Your task to perform on an android device: change the clock display to digital Image 0: 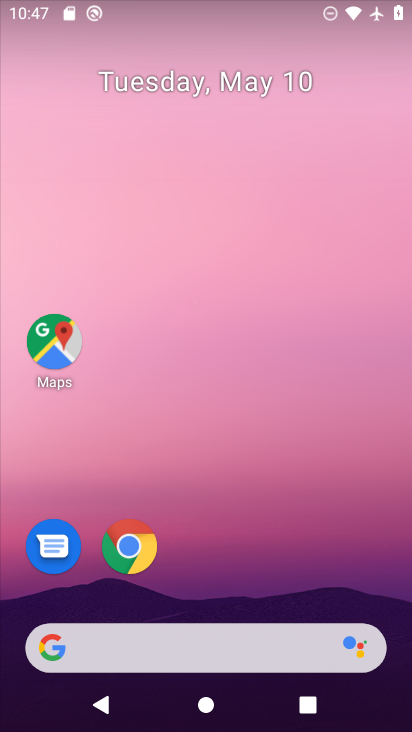
Step 0: drag from (300, 595) to (308, 136)
Your task to perform on an android device: change the clock display to digital Image 1: 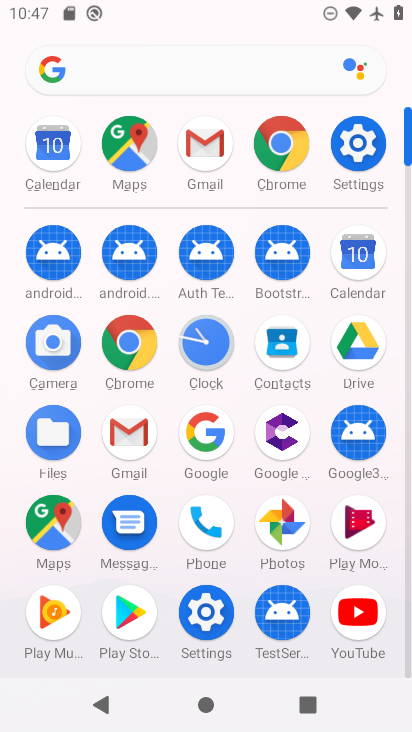
Step 1: click (214, 337)
Your task to perform on an android device: change the clock display to digital Image 2: 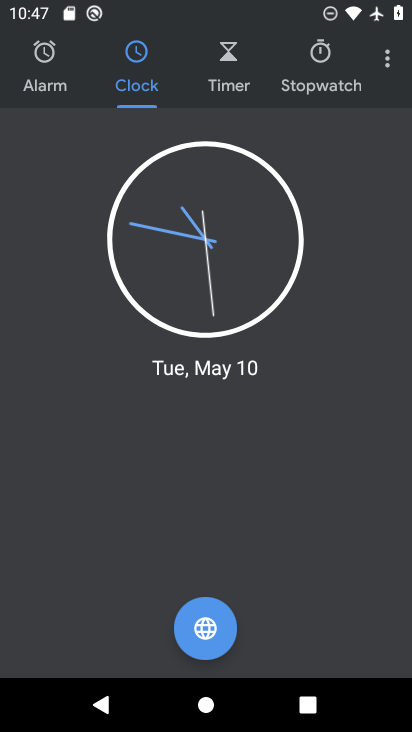
Step 2: click (388, 62)
Your task to perform on an android device: change the clock display to digital Image 3: 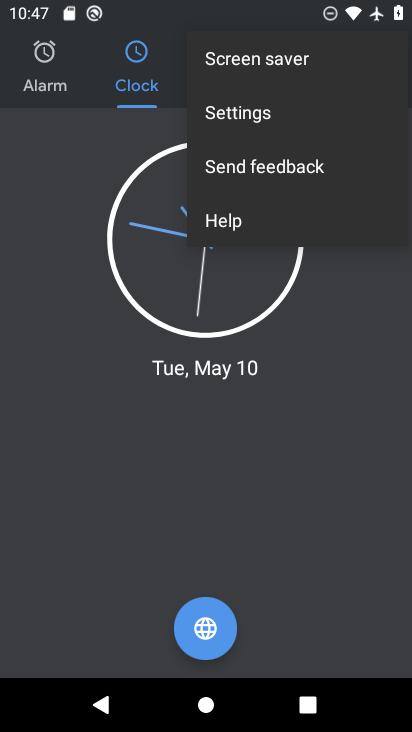
Step 3: click (260, 121)
Your task to perform on an android device: change the clock display to digital Image 4: 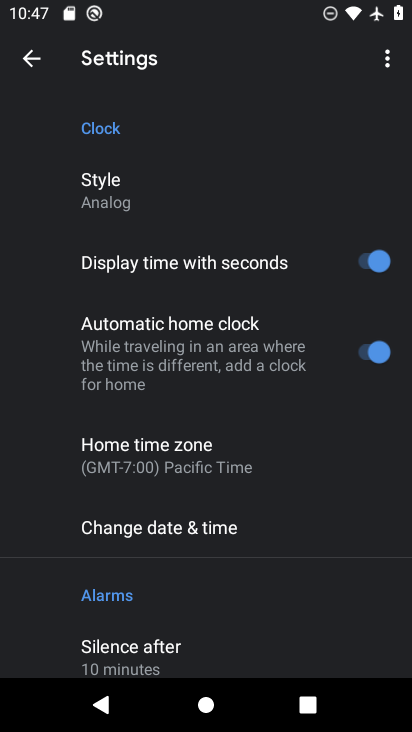
Step 4: click (134, 188)
Your task to perform on an android device: change the clock display to digital Image 5: 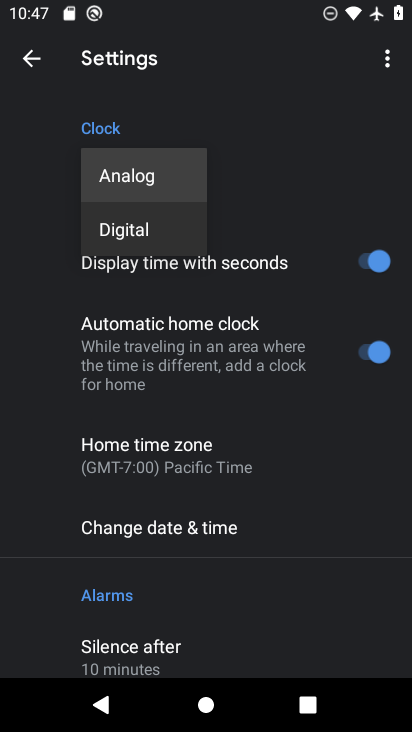
Step 5: click (140, 237)
Your task to perform on an android device: change the clock display to digital Image 6: 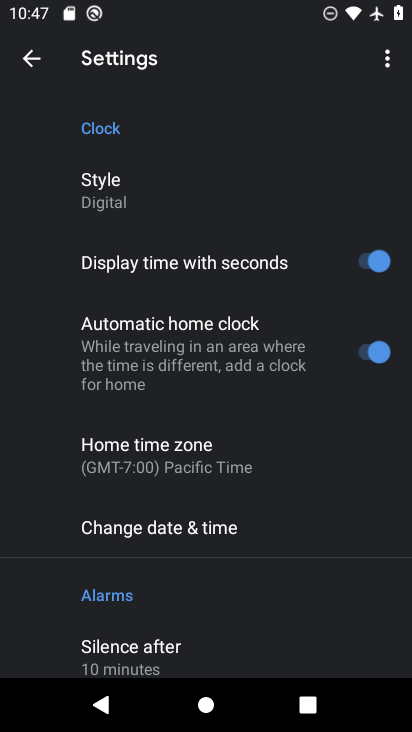
Step 6: task complete